Your task to perform on an android device: Clear the shopping cart on walmart.com. Search for "dell alienware" on walmart.com, select the first entry, and add it to the cart. Image 0: 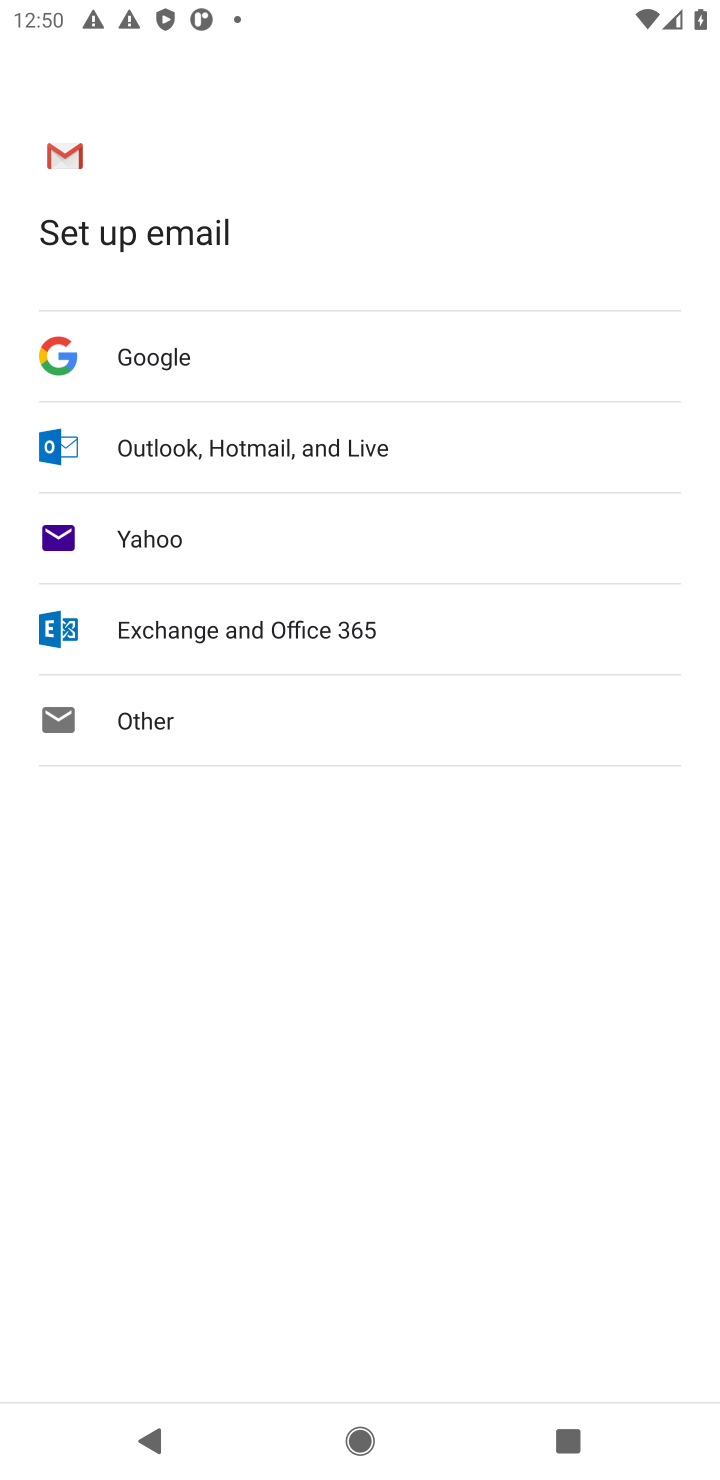
Step 0: press home button
Your task to perform on an android device: Clear the shopping cart on walmart.com. Search for "dell alienware" on walmart.com, select the first entry, and add it to the cart. Image 1: 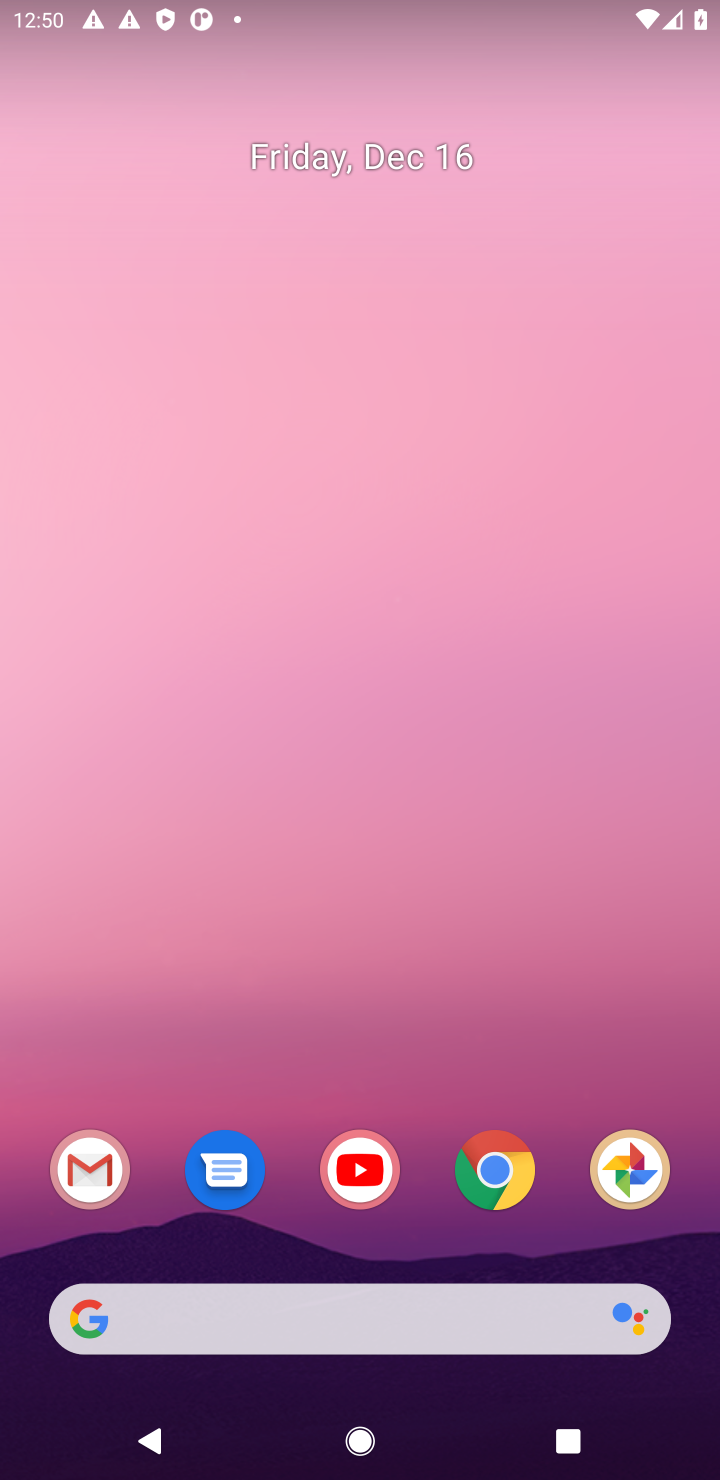
Step 1: click (488, 1171)
Your task to perform on an android device: Clear the shopping cart on walmart.com. Search for "dell alienware" on walmart.com, select the first entry, and add it to the cart. Image 2: 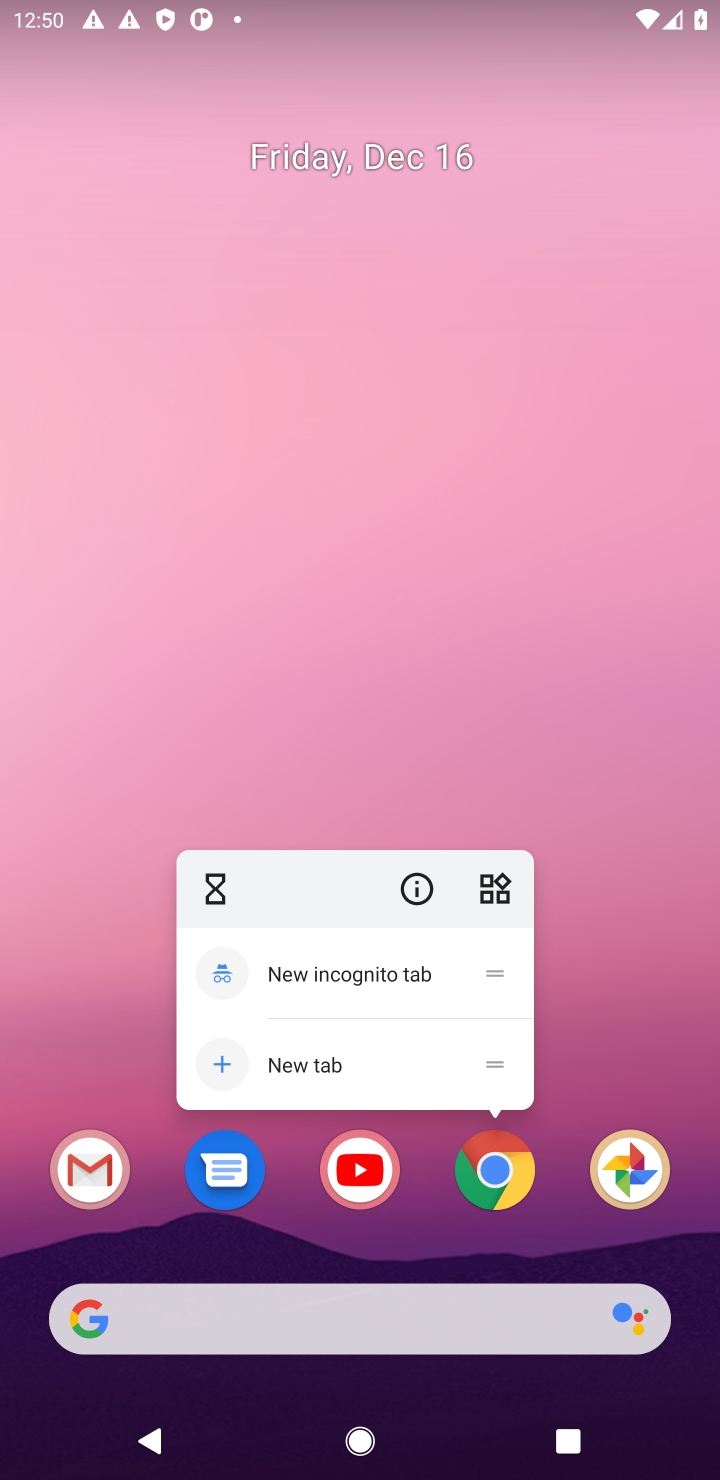
Step 2: click (488, 1171)
Your task to perform on an android device: Clear the shopping cart on walmart.com. Search for "dell alienware" on walmart.com, select the first entry, and add it to the cart. Image 3: 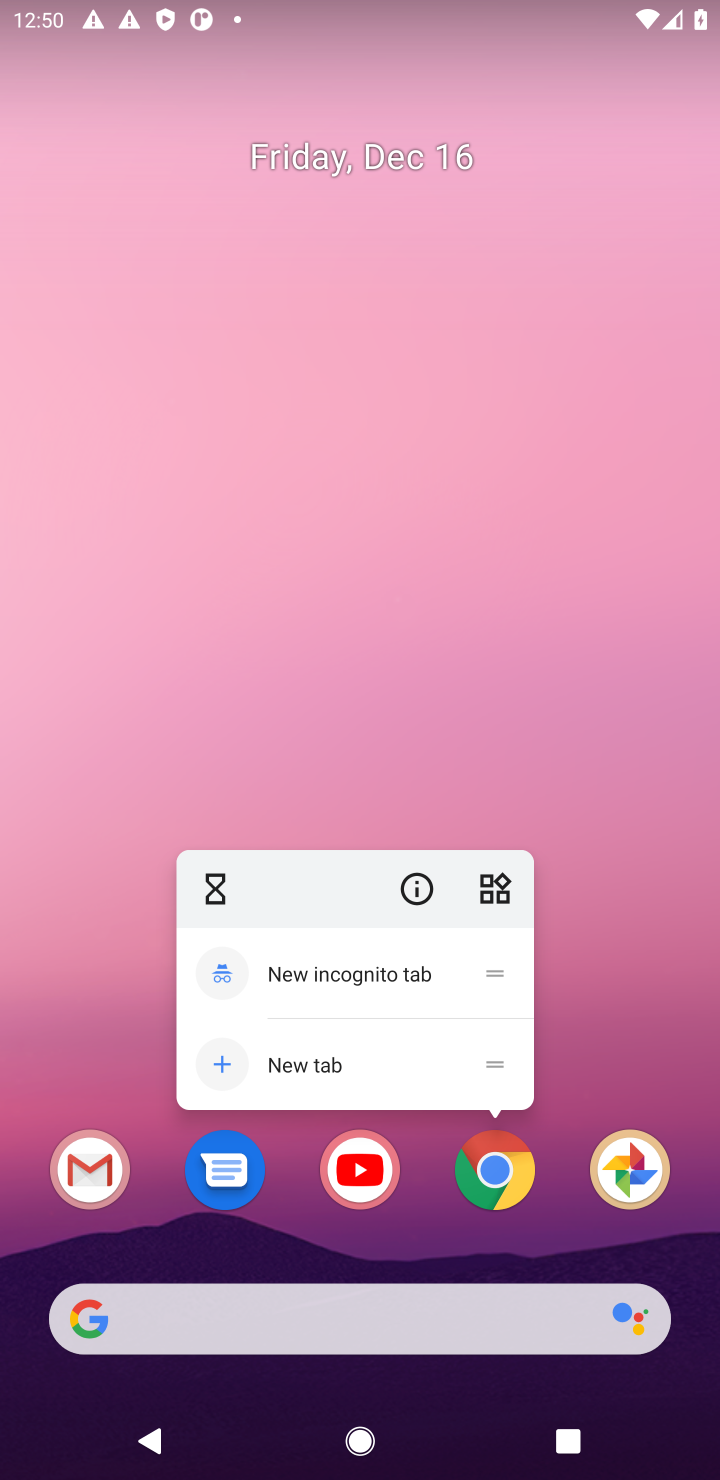
Step 3: click (488, 1171)
Your task to perform on an android device: Clear the shopping cart on walmart.com. Search for "dell alienware" on walmart.com, select the first entry, and add it to the cart. Image 4: 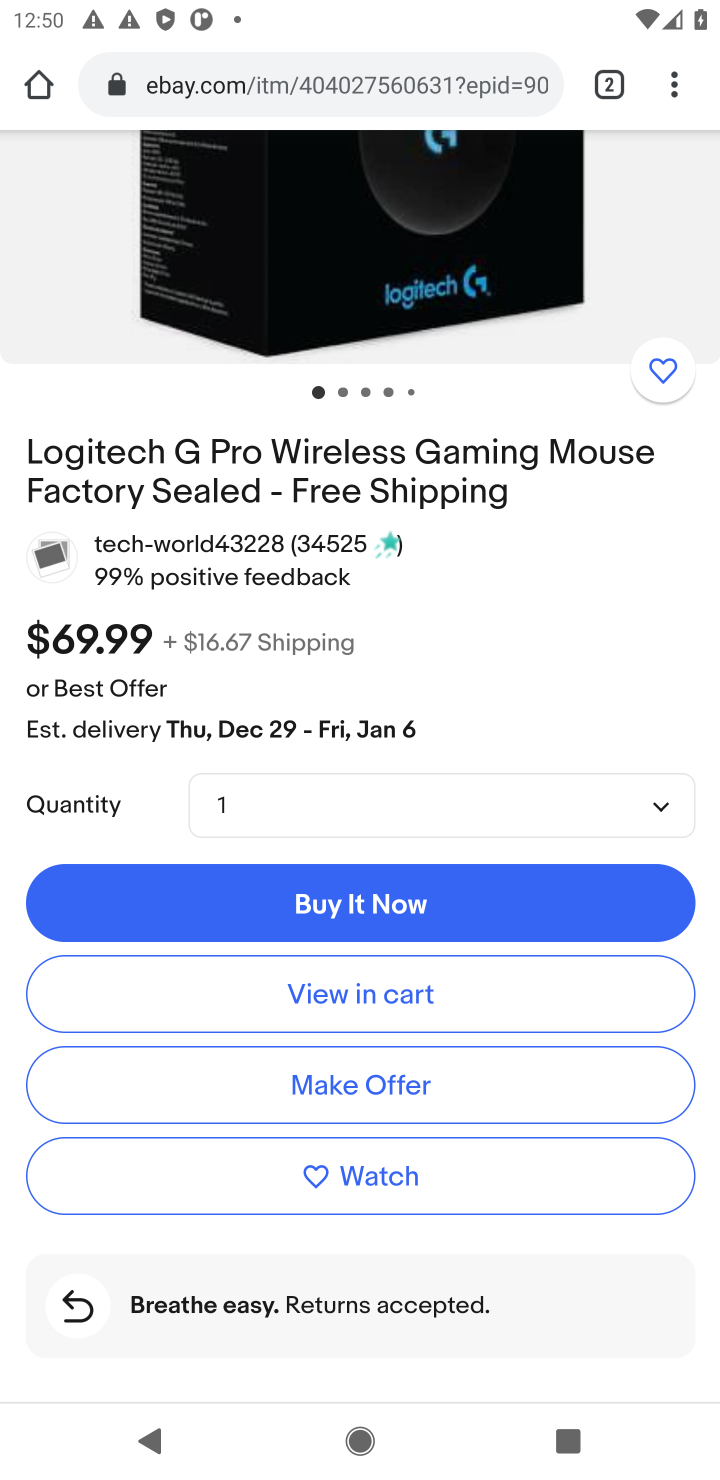
Step 4: click (248, 86)
Your task to perform on an android device: Clear the shopping cart on walmart.com. Search for "dell alienware" on walmart.com, select the first entry, and add it to the cart. Image 5: 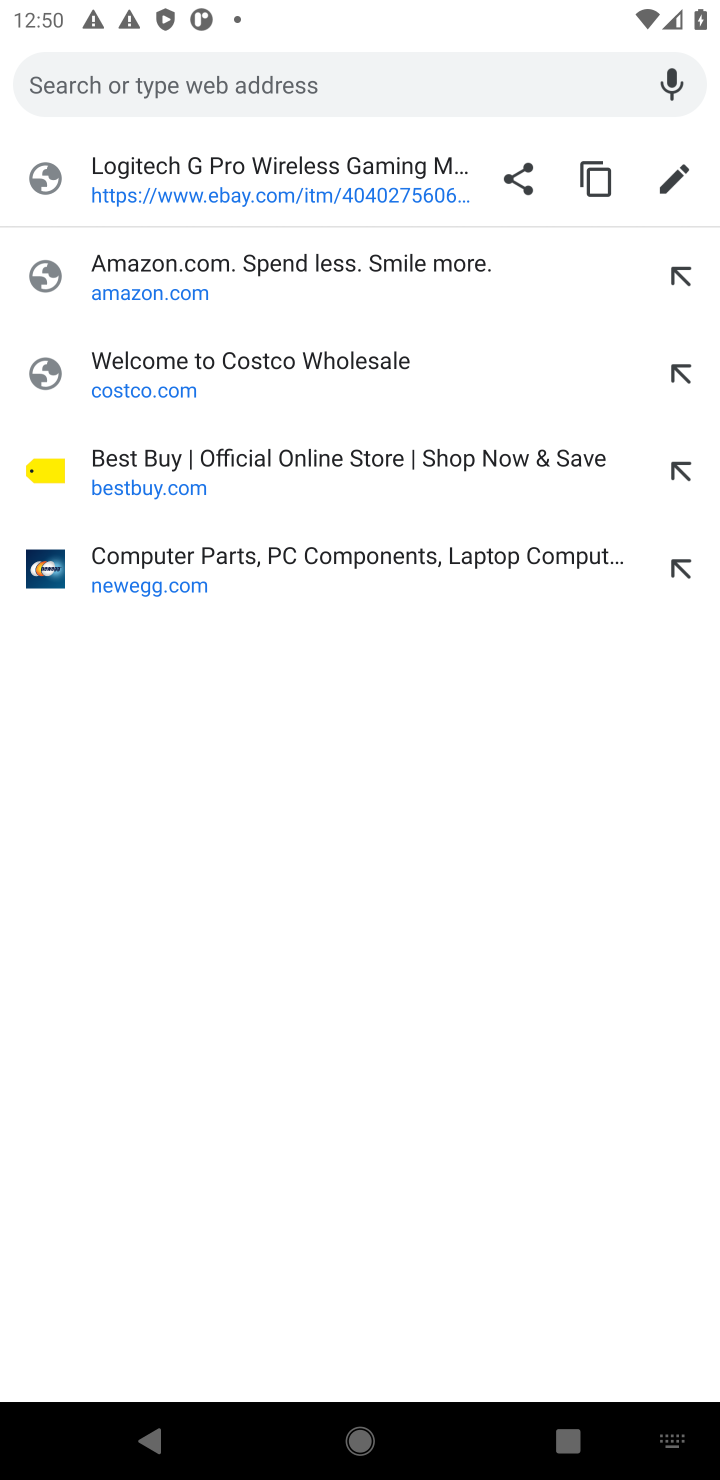
Step 5: type "walmart.com"
Your task to perform on an android device: Clear the shopping cart on walmart.com. Search for "dell alienware" on walmart.com, select the first entry, and add it to the cart. Image 6: 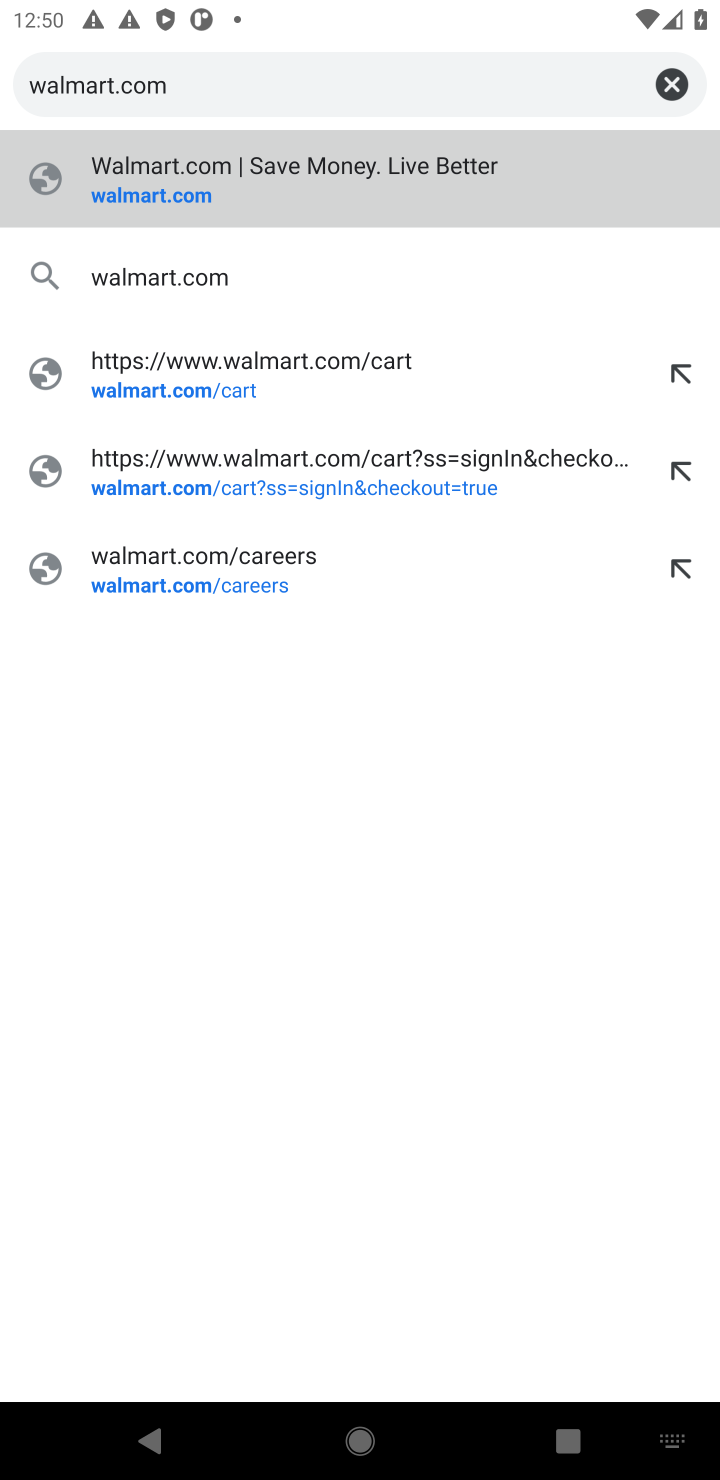
Step 6: click (138, 188)
Your task to perform on an android device: Clear the shopping cart on walmart.com. Search for "dell alienware" on walmart.com, select the first entry, and add it to the cart. Image 7: 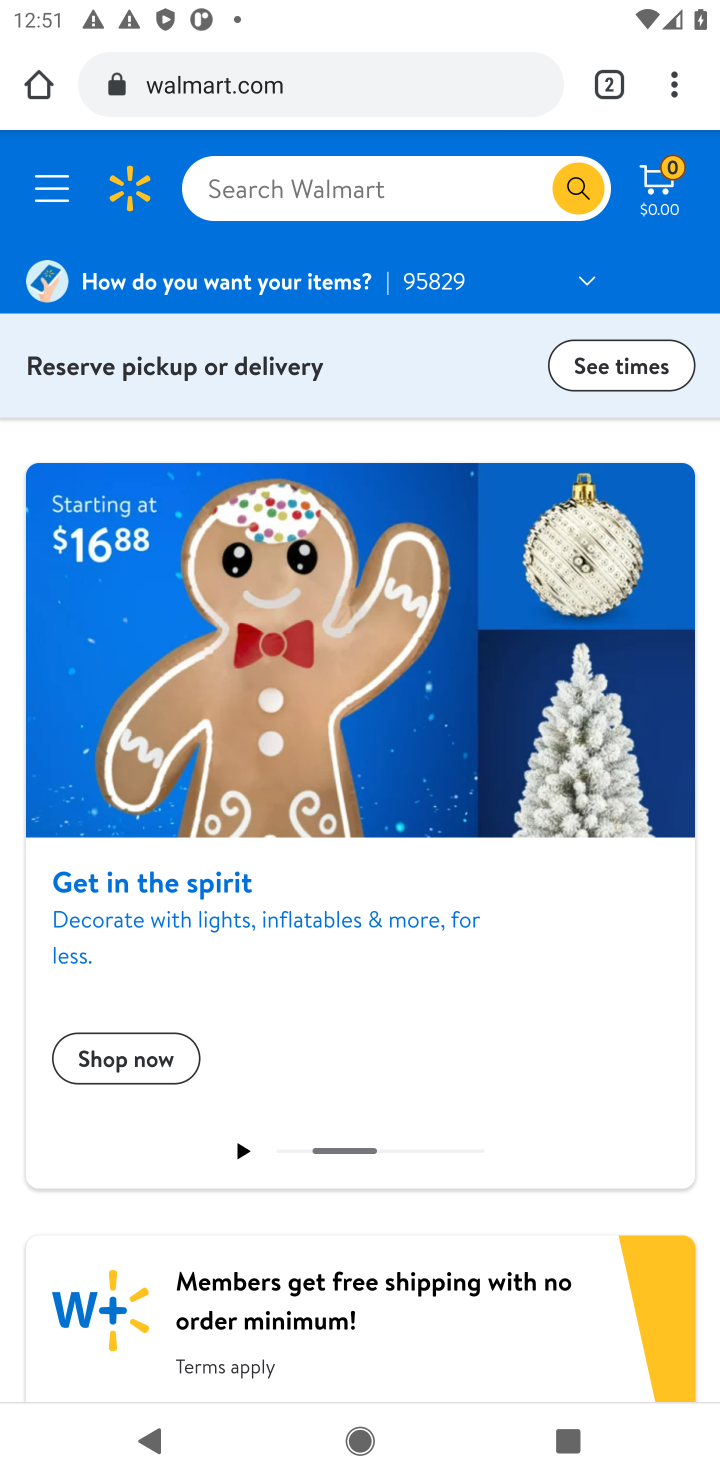
Step 7: click (657, 190)
Your task to perform on an android device: Clear the shopping cart on walmart.com. Search for "dell alienware" on walmart.com, select the first entry, and add it to the cart. Image 8: 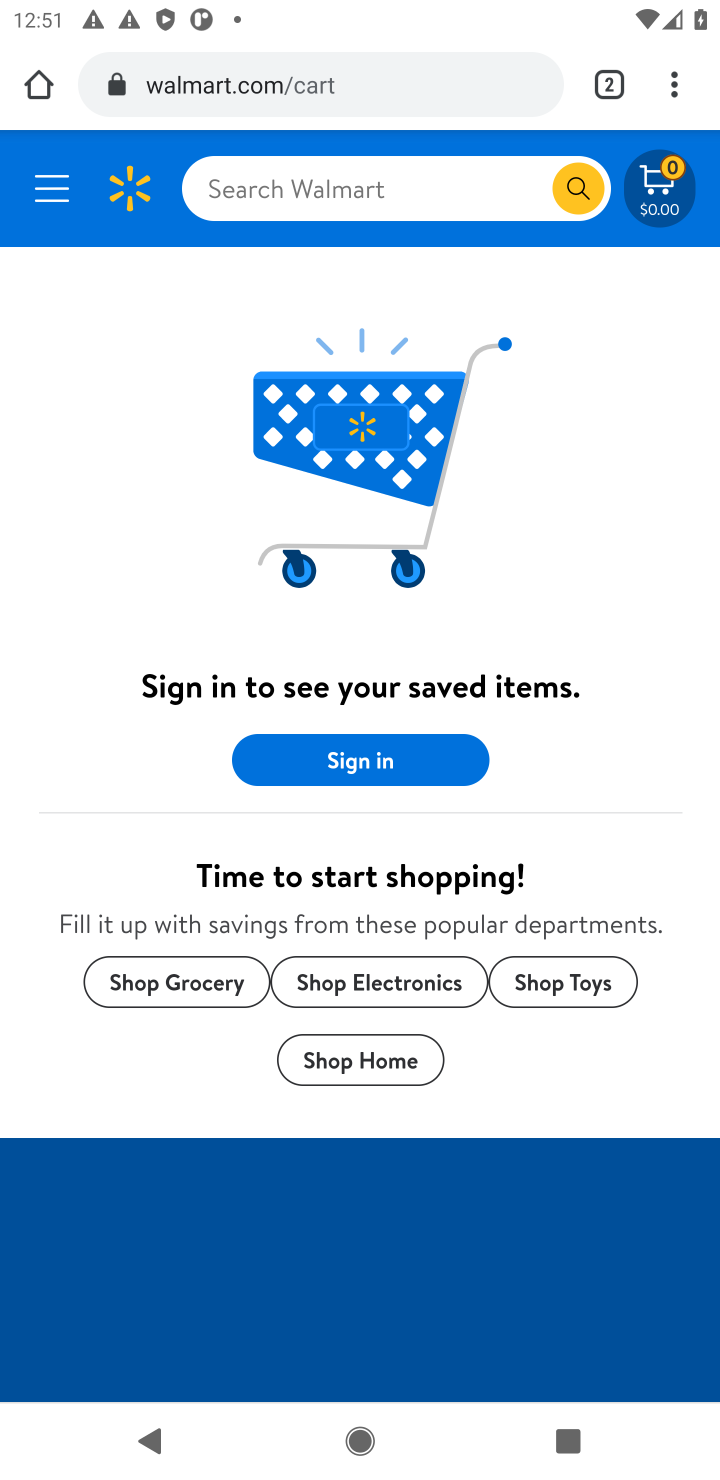
Step 8: click (246, 208)
Your task to perform on an android device: Clear the shopping cart on walmart.com. Search for "dell alienware" on walmart.com, select the first entry, and add it to the cart. Image 9: 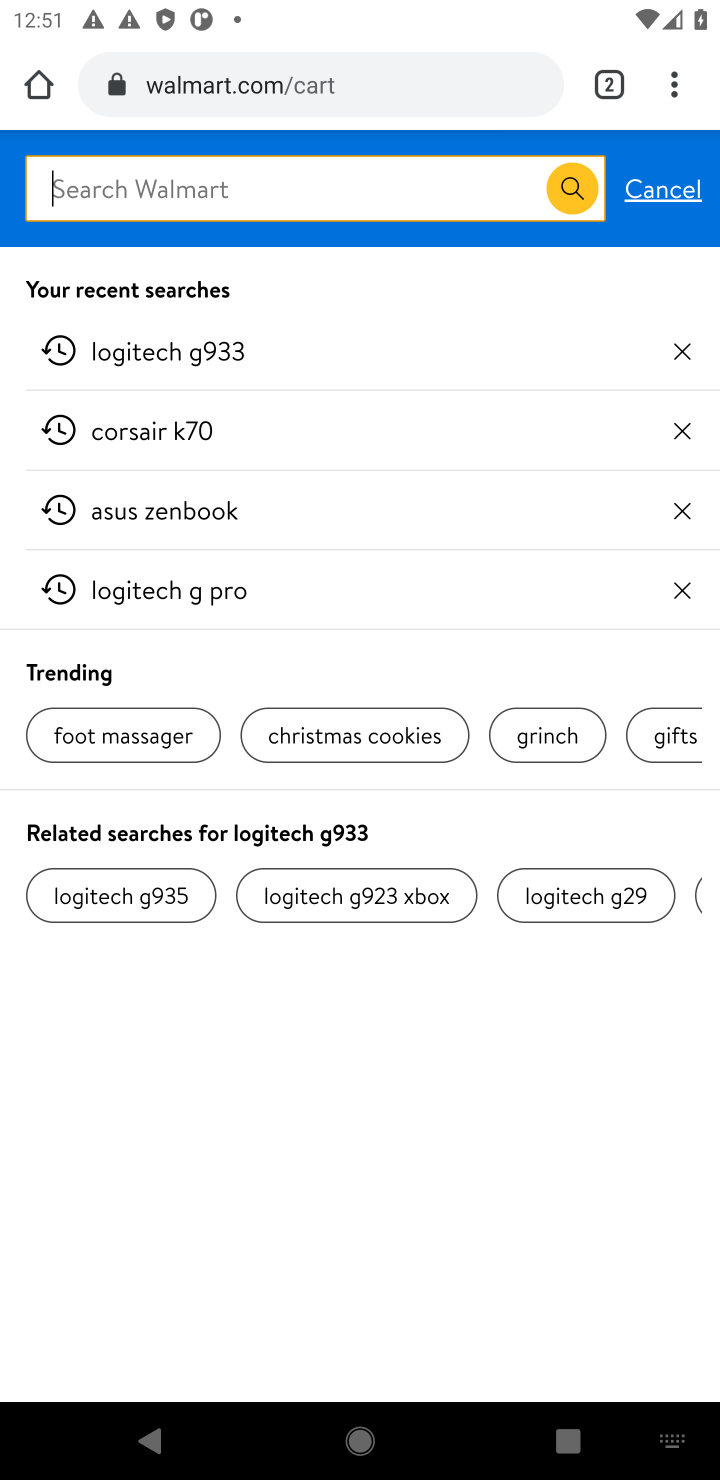
Step 9: type "dell alienware"
Your task to perform on an android device: Clear the shopping cart on walmart.com. Search for "dell alienware" on walmart.com, select the first entry, and add it to the cart. Image 10: 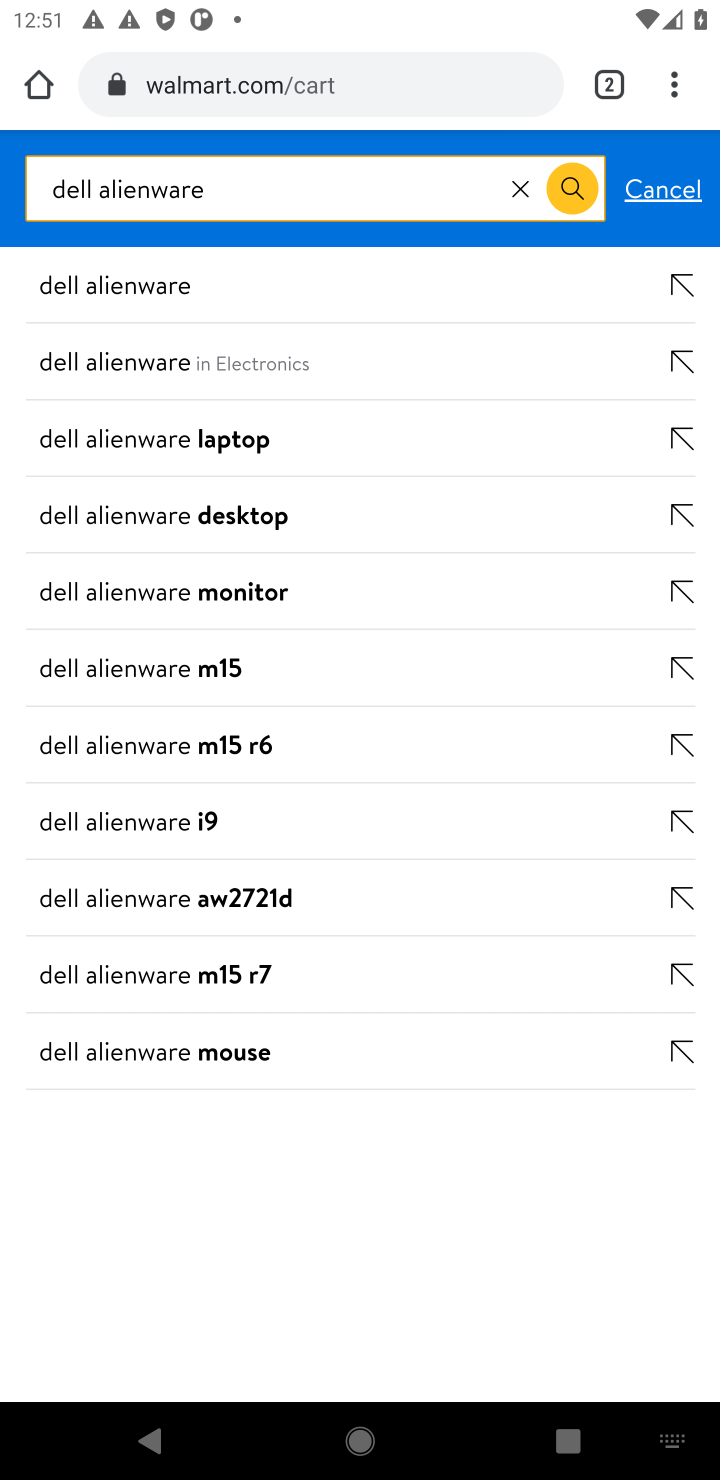
Step 10: click (83, 291)
Your task to perform on an android device: Clear the shopping cart on walmart.com. Search for "dell alienware" on walmart.com, select the first entry, and add it to the cart. Image 11: 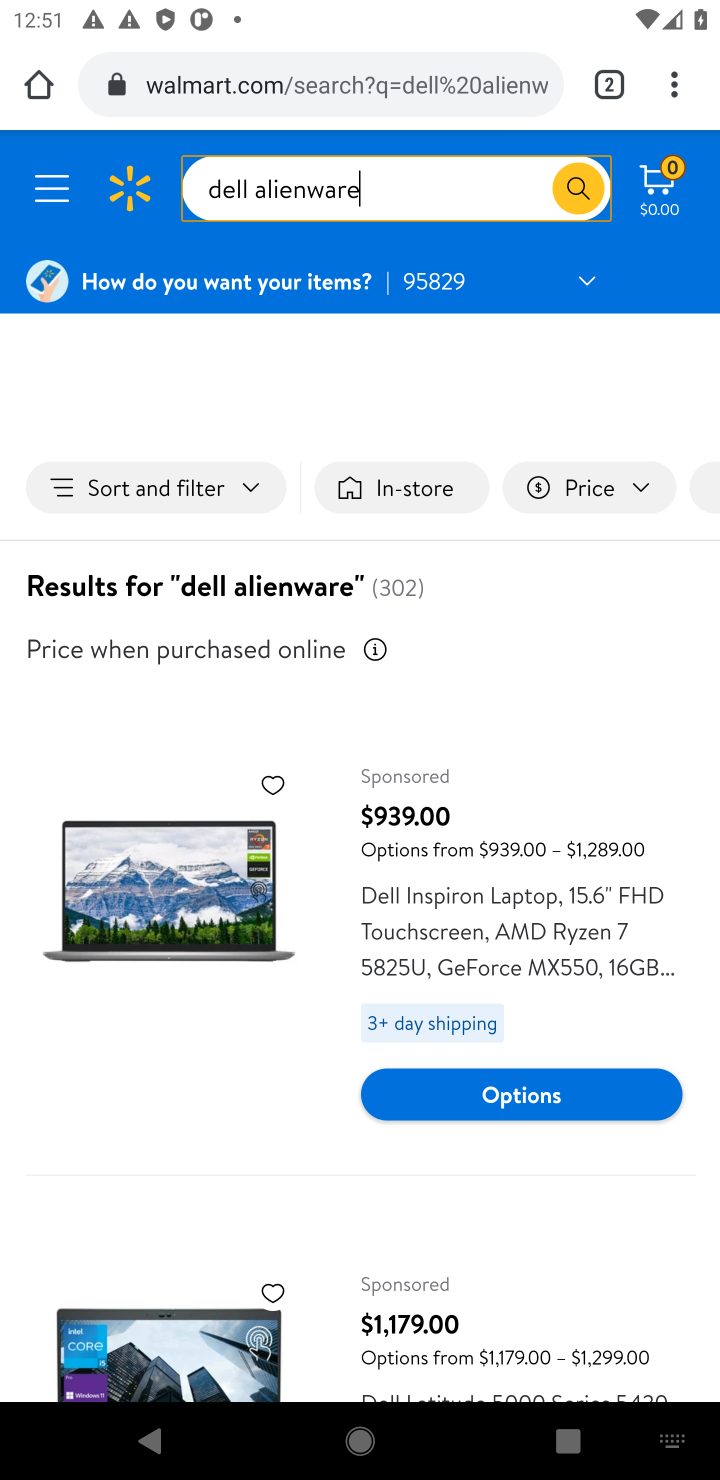
Step 11: task complete